Your task to perform on an android device: open app "Duolingo: language lessons" (install if not already installed) and go to login screen Image 0: 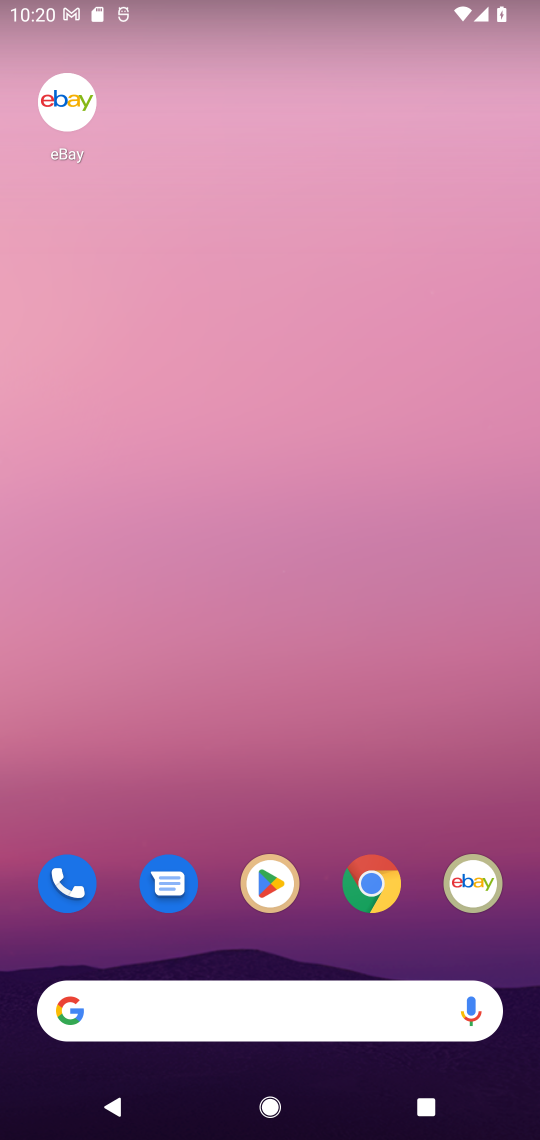
Step 0: drag from (274, 701) to (265, 56)
Your task to perform on an android device: open app "Duolingo: language lessons" (install if not already installed) and go to login screen Image 1: 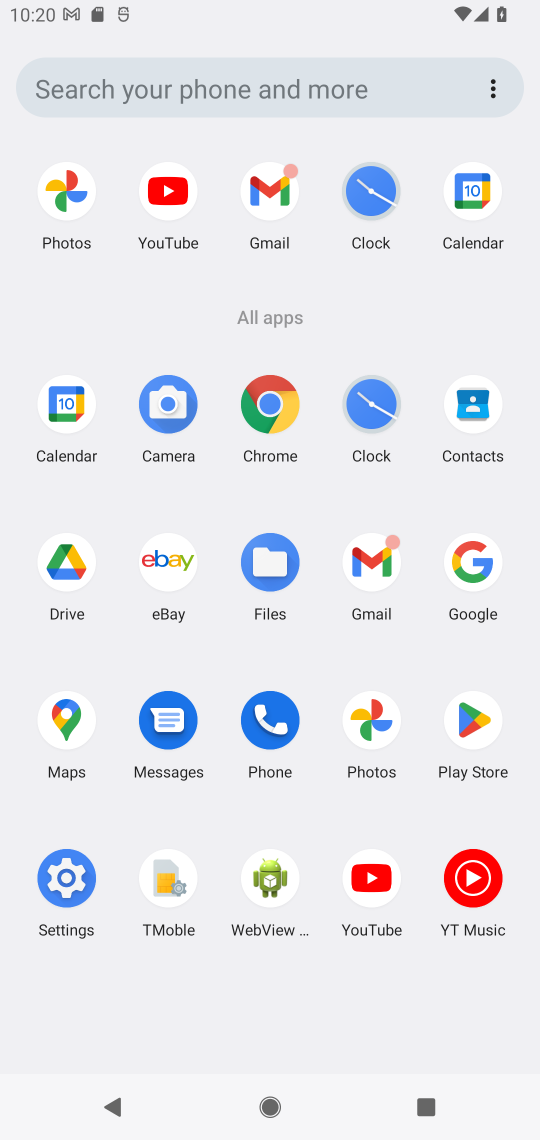
Step 1: click (478, 714)
Your task to perform on an android device: open app "Duolingo: language lessons" (install if not already installed) and go to login screen Image 2: 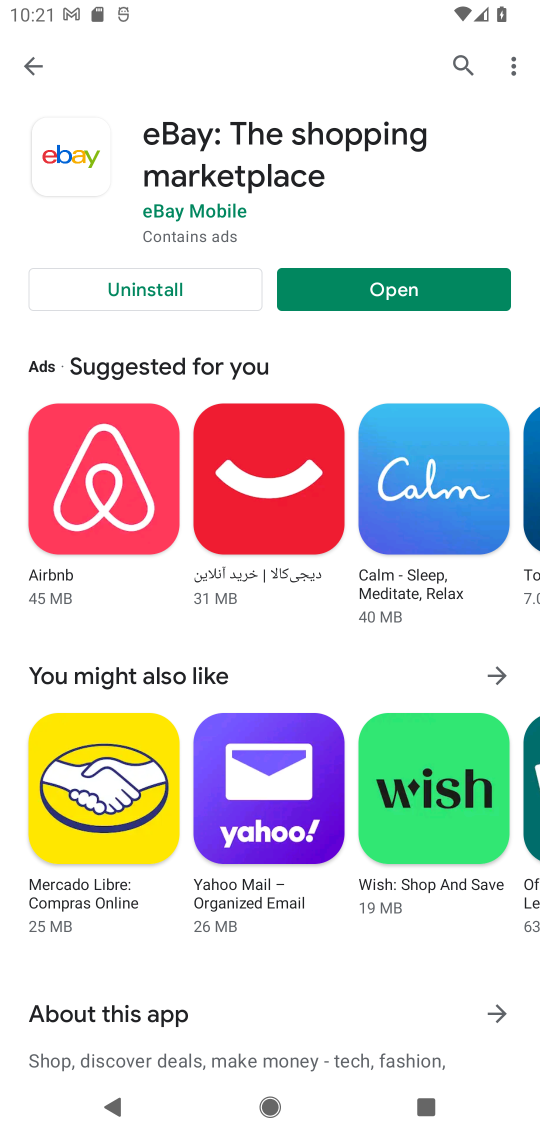
Step 2: click (461, 62)
Your task to perform on an android device: open app "Duolingo: language lessons" (install if not already installed) and go to login screen Image 3: 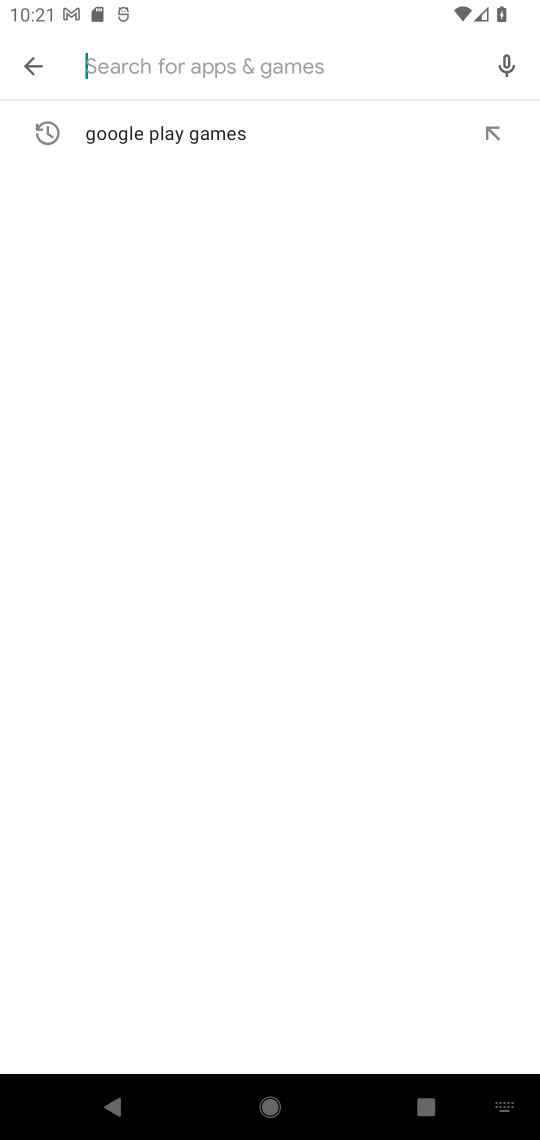
Step 3: type "Duolingo: language lessons"
Your task to perform on an android device: open app "Duolingo: language lessons" (install if not already installed) and go to login screen Image 4: 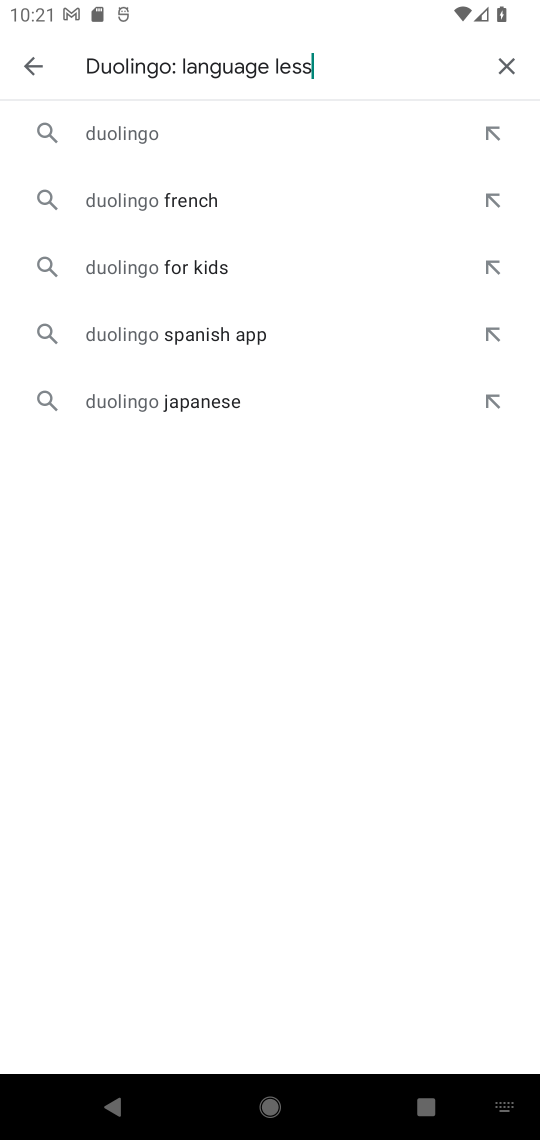
Step 4: type ""
Your task to perform on an android device: open app "Duolingo: language lessons" (install if not already installed) and go to login screen Image 5: 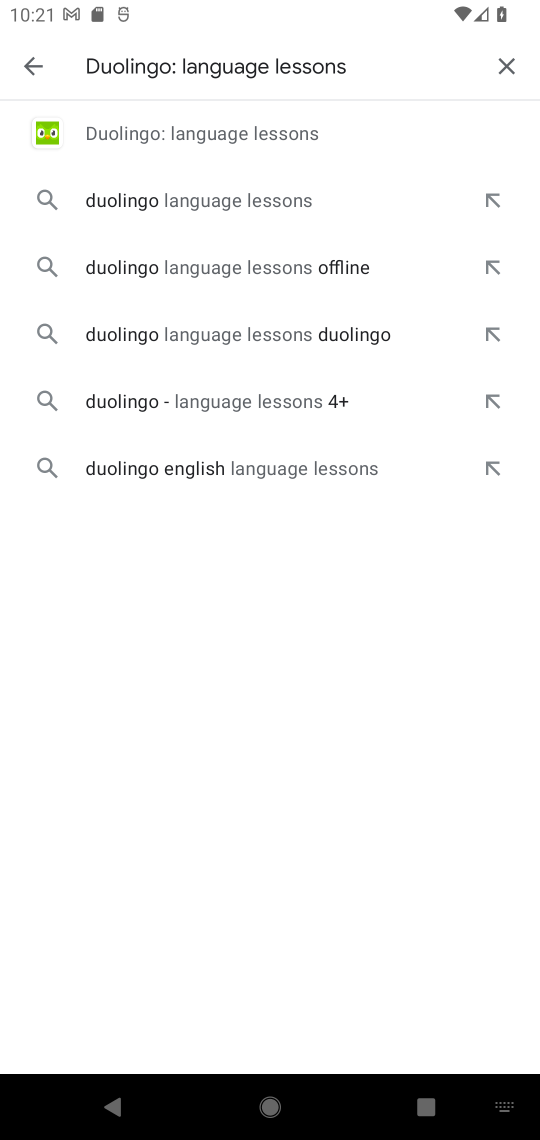
Step 5: click (293, 128)
Your task to perform on an android device: open app "Duolingo: language lessons" (install if not already installed) and go to login screen Image 6: 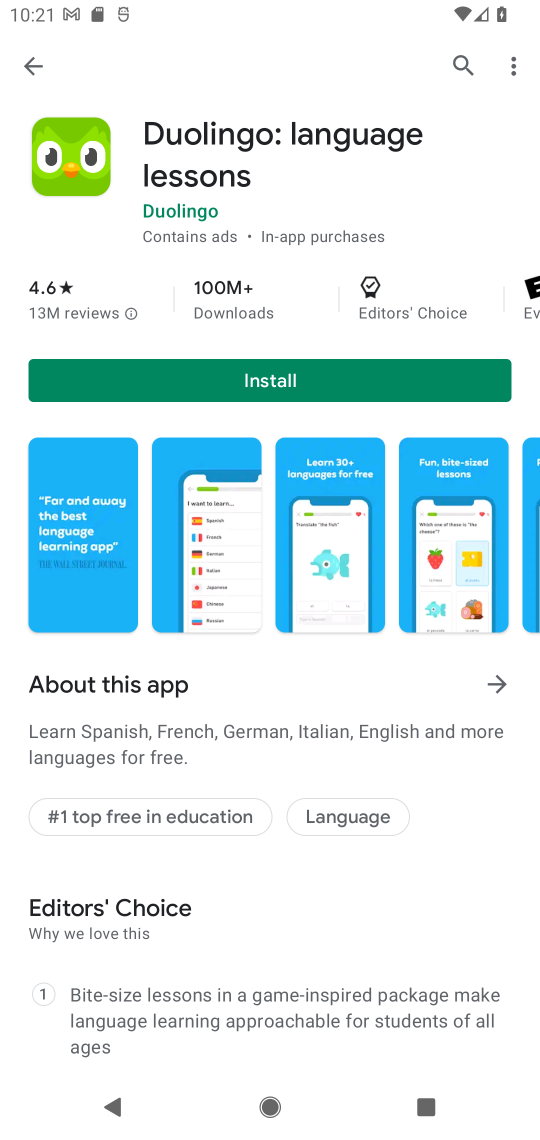
Step 6: click (271, 383)
Your task to perform on an android device: open app "Duolingo: language lessons" (install if not already installed) and go to login screen Image 7: 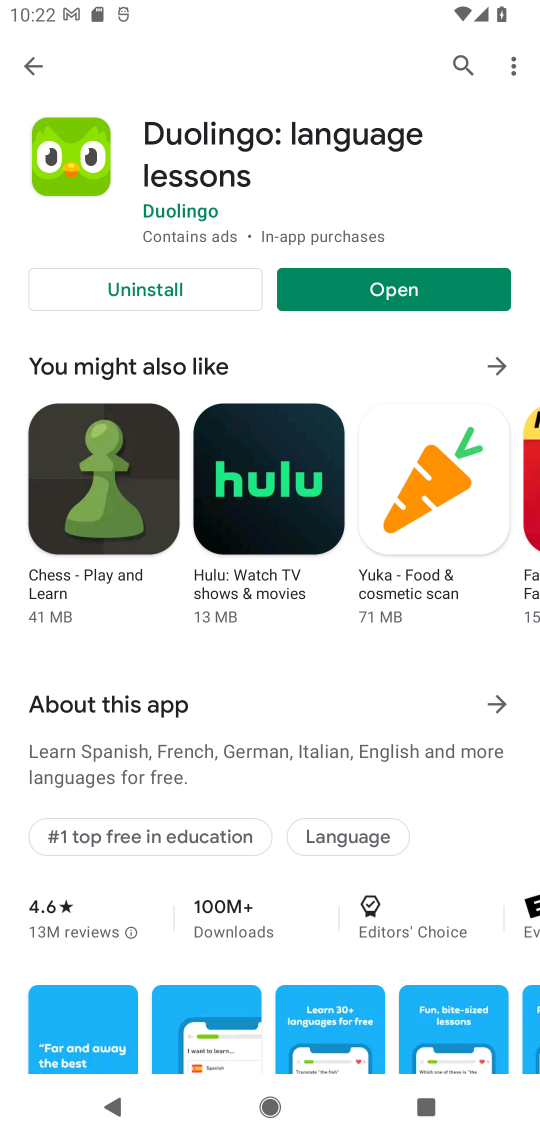
Step 7: click (402, 283)
Your task to perform on an android device: open app "Duolingo: language lessons" (install if not already installed) and go to login screen Image 8: 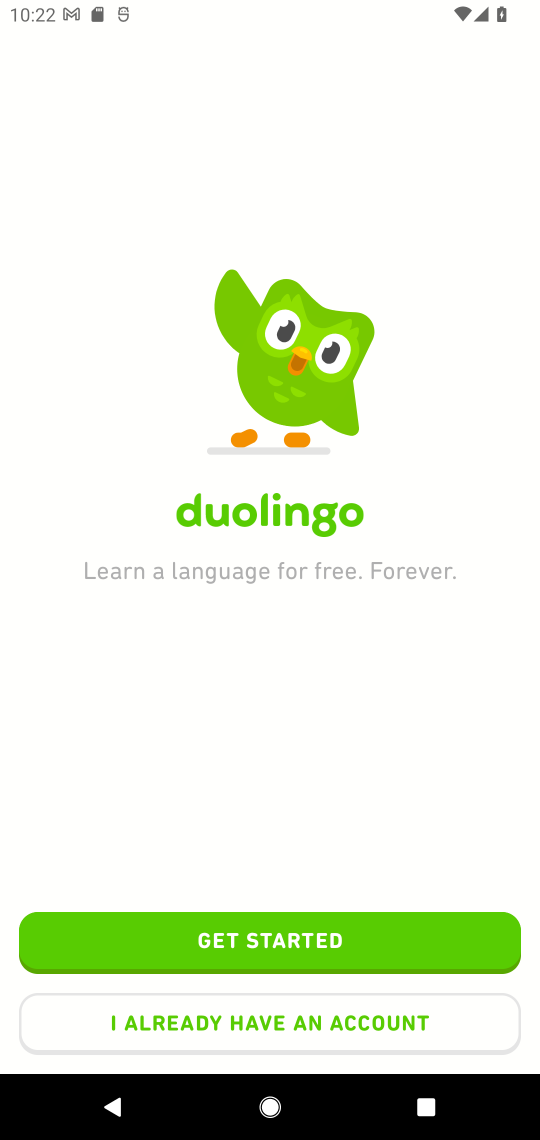
Step 8: click (254, 1027)
Your task to perform on an android device: open app "Duolingo: language lessons" (install if not already installed) and go to login screen Image 9: 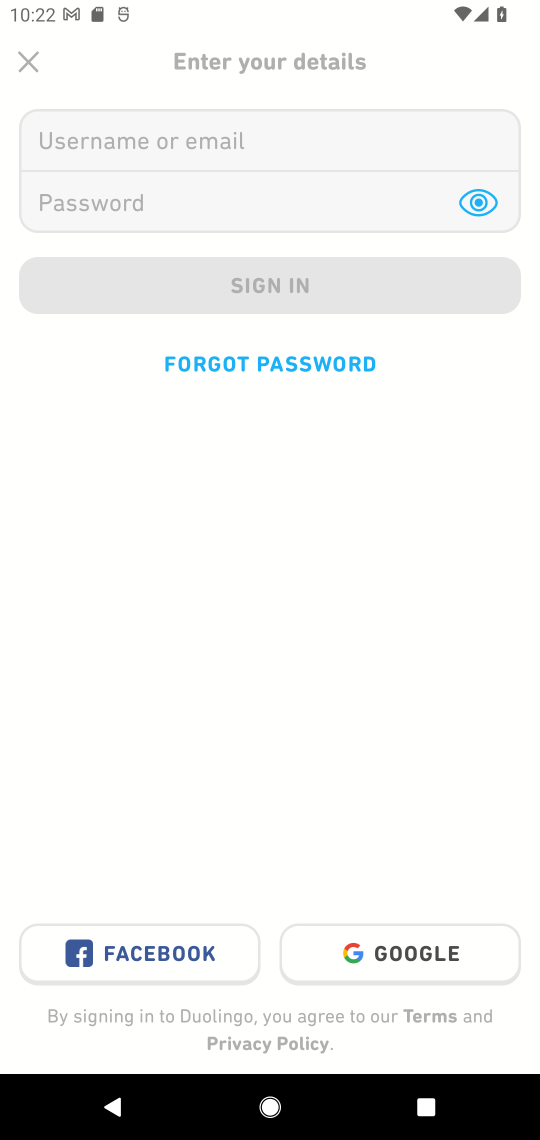
Step 9: task complete